Your task to perform on an android device: change the clock display to digital Image 0: 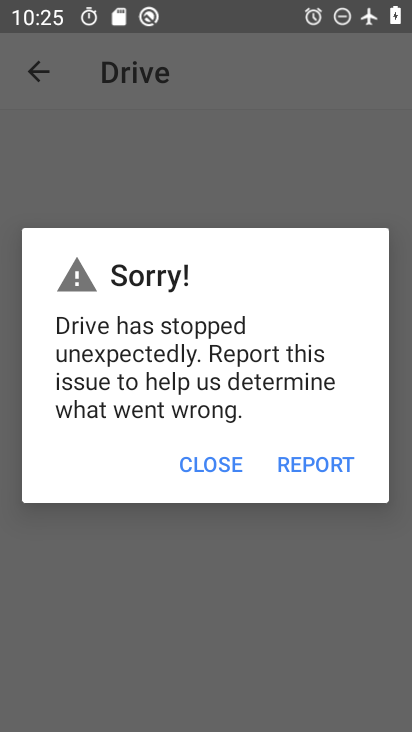
Step 0: press home button
Your task to perform on an android device: change the clock display to digital Image 1: 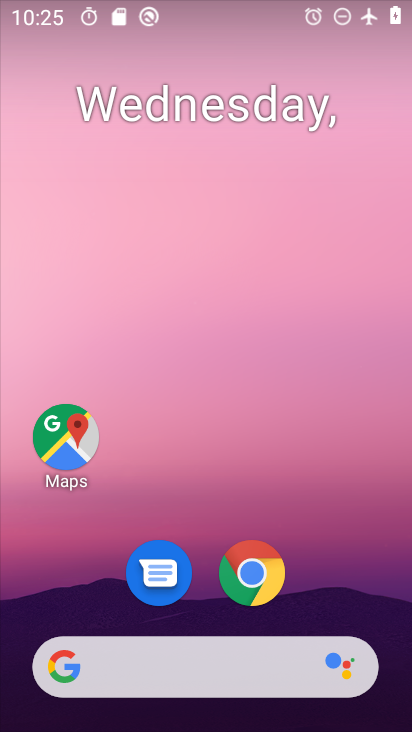
Step 1: drag from (298, 627) to (314, 100)
Your task to perform on an android device: change the clock display to digital Image 2: 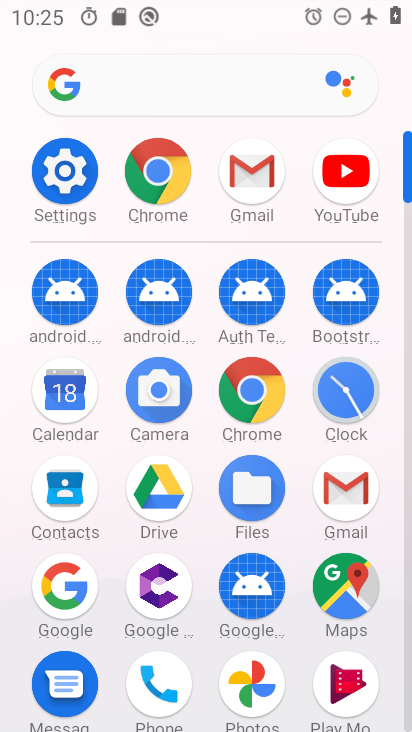
Step 2: click (356, 395)
Your task to perform on an android device: change the clock display to digital Image 3: 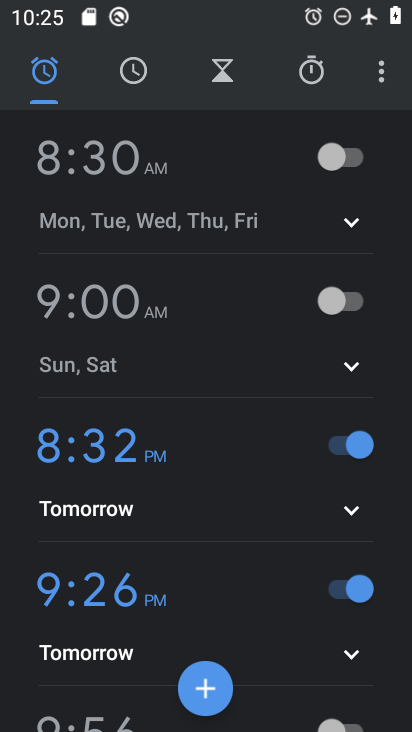
Step 3: click (387, 92)
Your task to perform on an android device: change the clock display to digital Image 4: 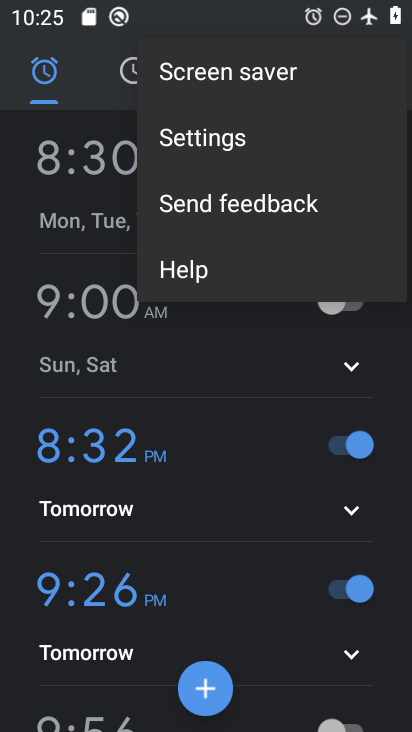
Step 4: click (253, 136)
Your task to perform on an android device: change the clock display to digital Image 5: 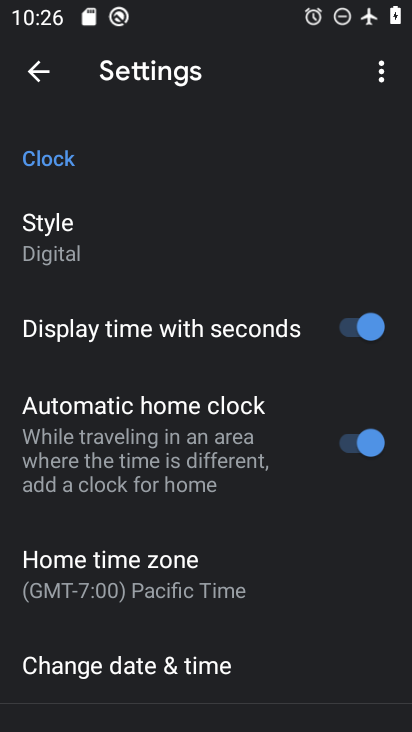
Step 5: task complete